Your task to perform on an android device: What's the weather? Image 0: 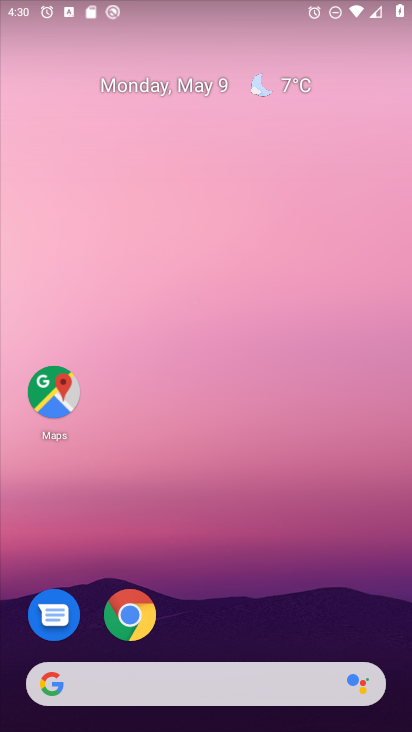
Step 0: click (273, 83)
Your task to perform on an android device: What's the weather? Image 1: 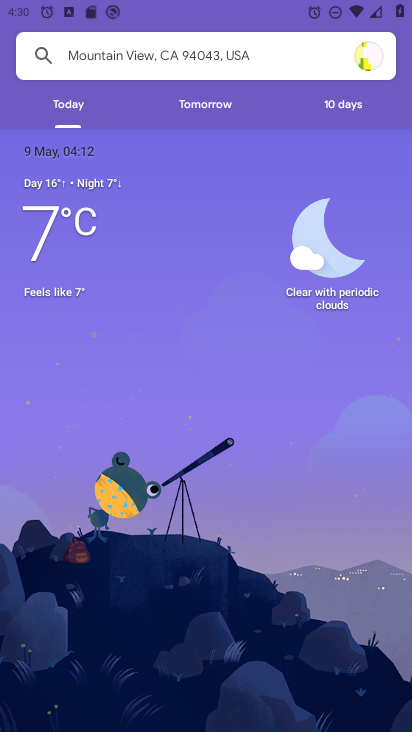
Step 1: task complete